Your task to perform on an android device: open app "Google Duo" (install if not already installed) Image 0: 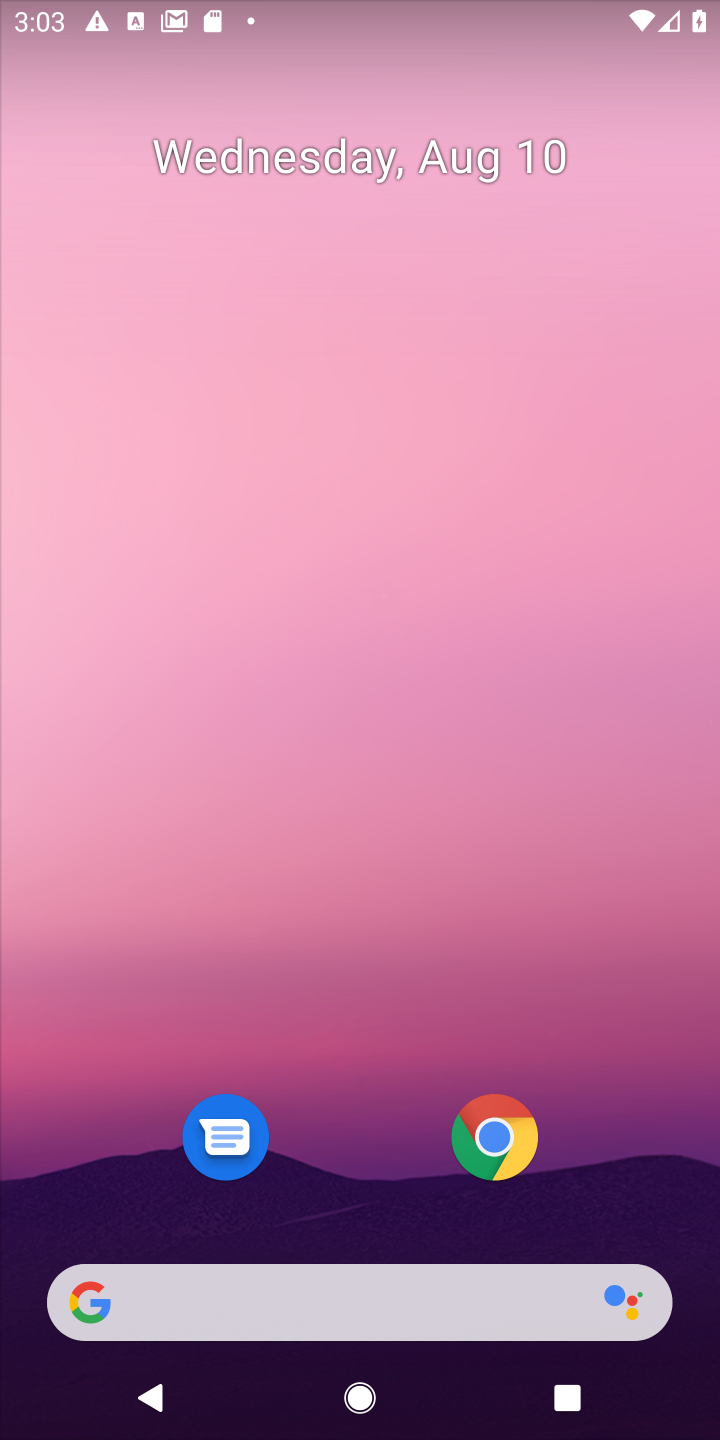
Step 0: drag from (334, 1179) to (362, 319)
Your task to perform on an android device: open app "Google Duo" (install if not already installed) Image 1: 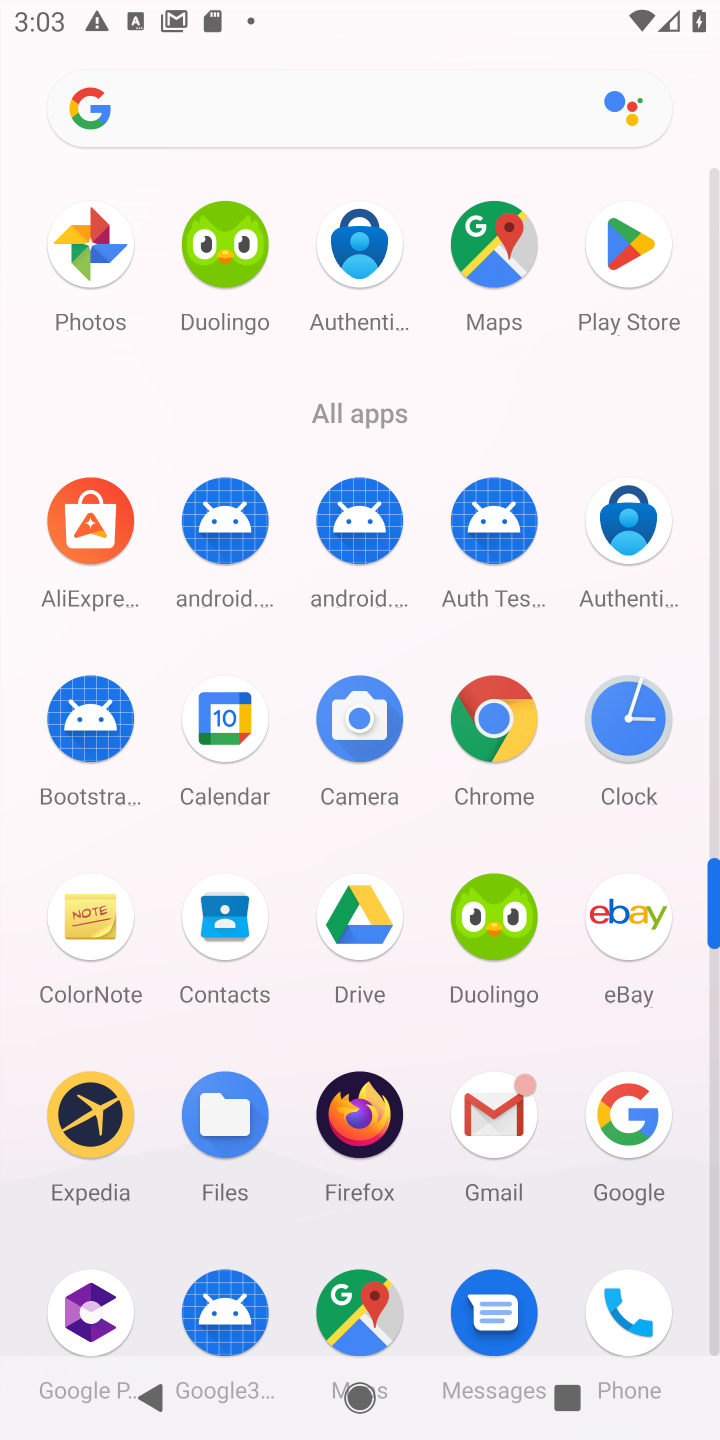
Step 1: click (626, 295)
Your task to perform on an android device: open app "Google Duo" (install if not already installed) Image 2: 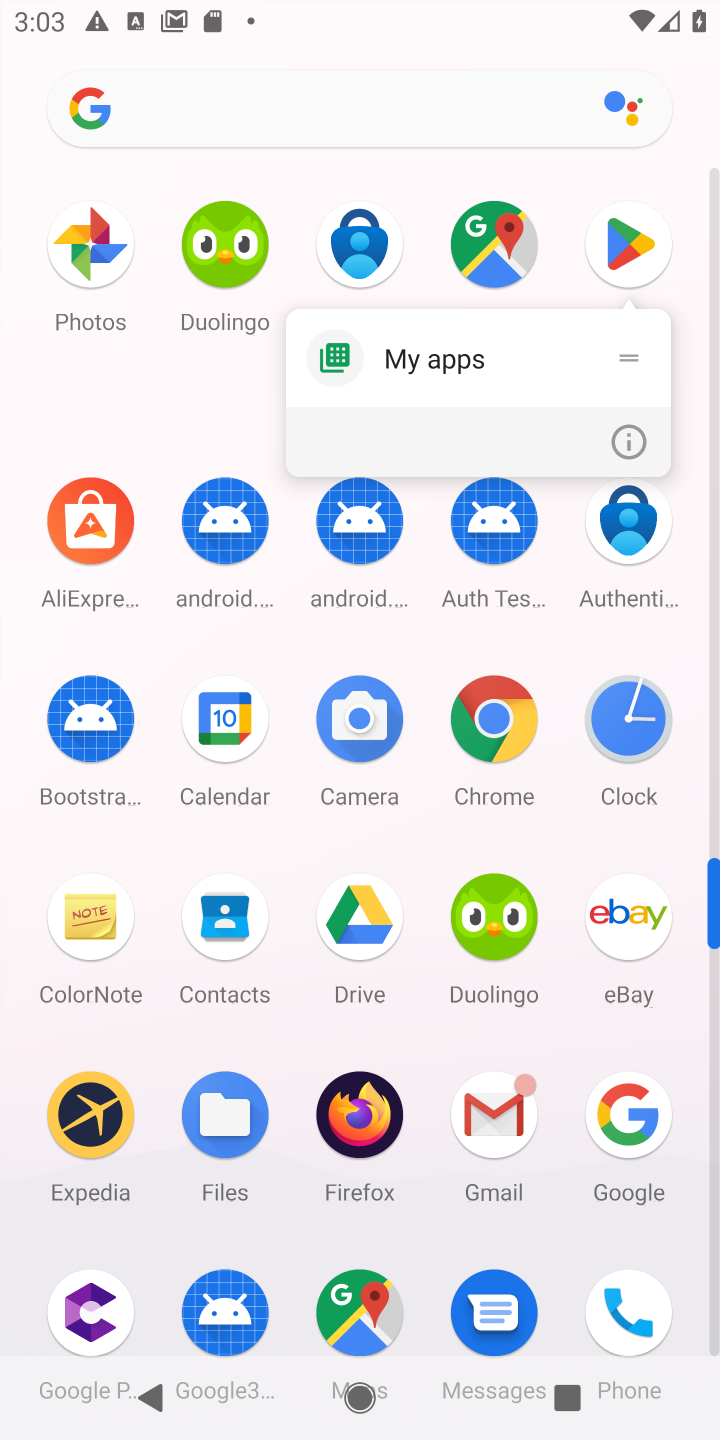
Step 2: click (630, 251)
Your task to perform on an android device: open app "Google Duo" (install if not already installed) Image 3: 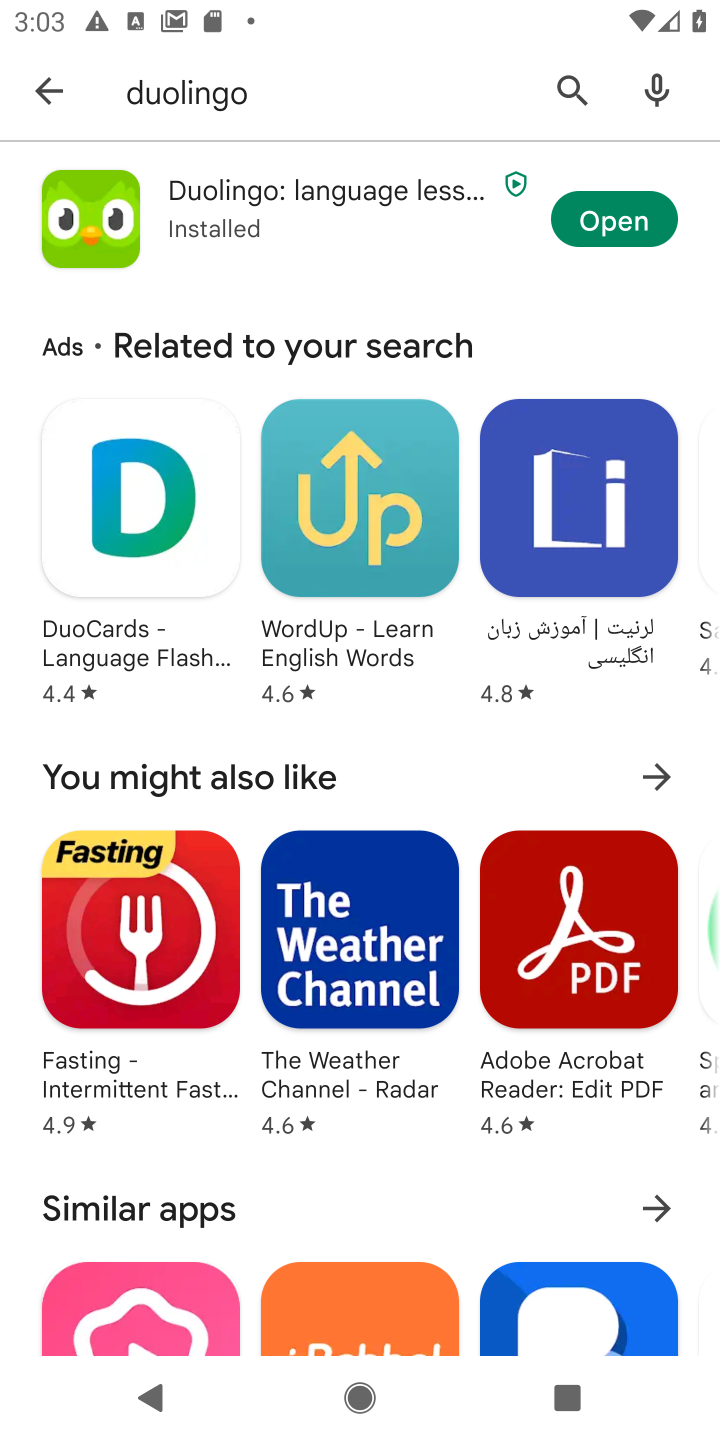
Step 3: click (291, 91)
Your task to perform on an android device: open app "Google Duo" (install if not already installed) Image 4: 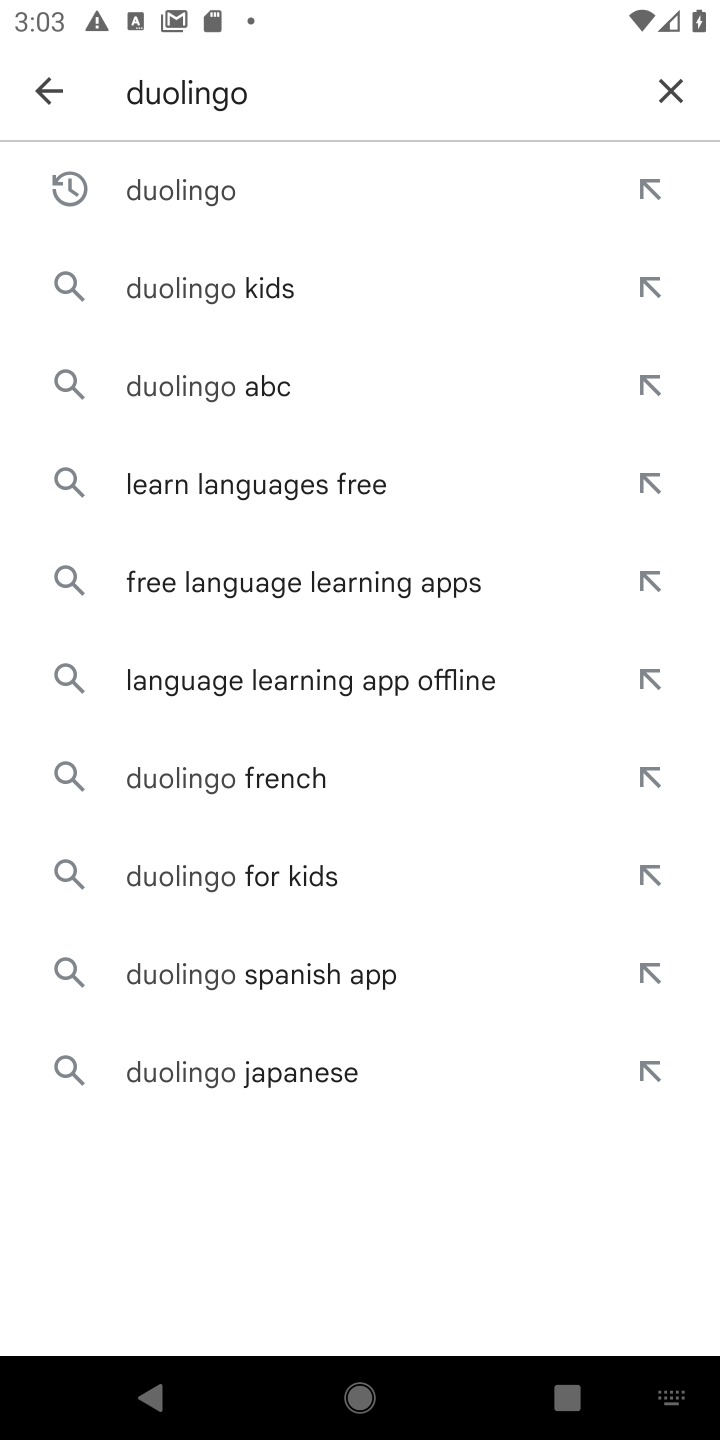
Step 4: click (662, 74)
Your task to perform on an android device: open app "Google Duo" (install if not already installed) Image 5: 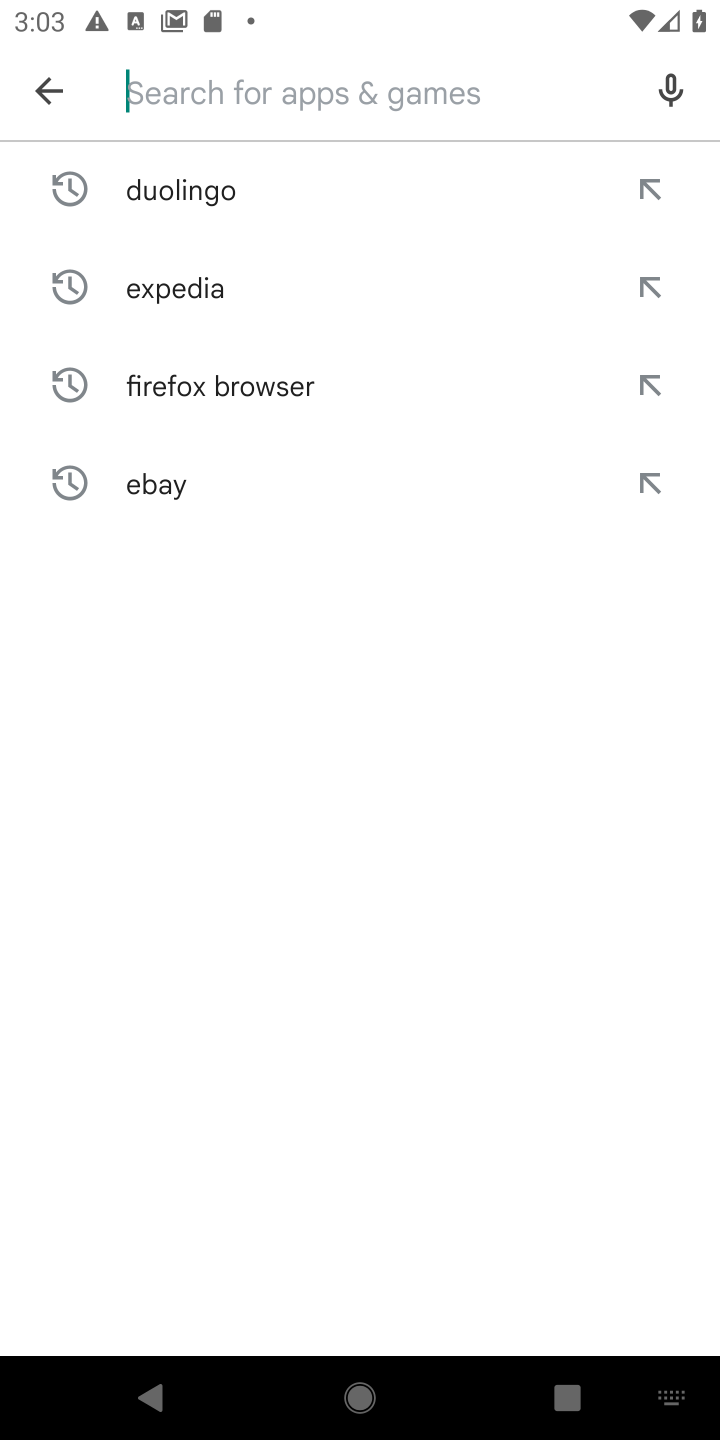
Step 5: type "google duo"
Your task to perform on an android device: open app "Google Duo" (install if not already installed) Image 6: 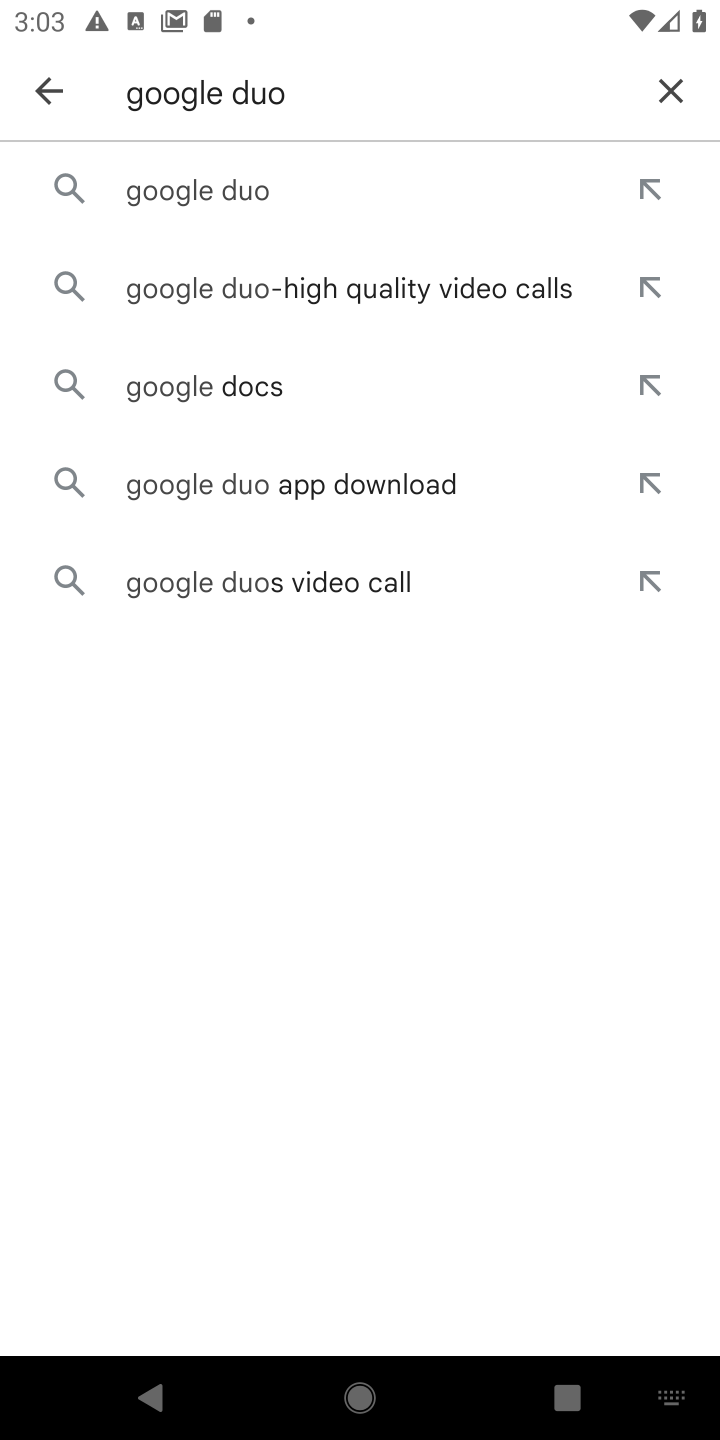
Step 6: click (162, 181)
Your task to perform on an android device: open app "Google Duo" (install if not already installed) Image 7: 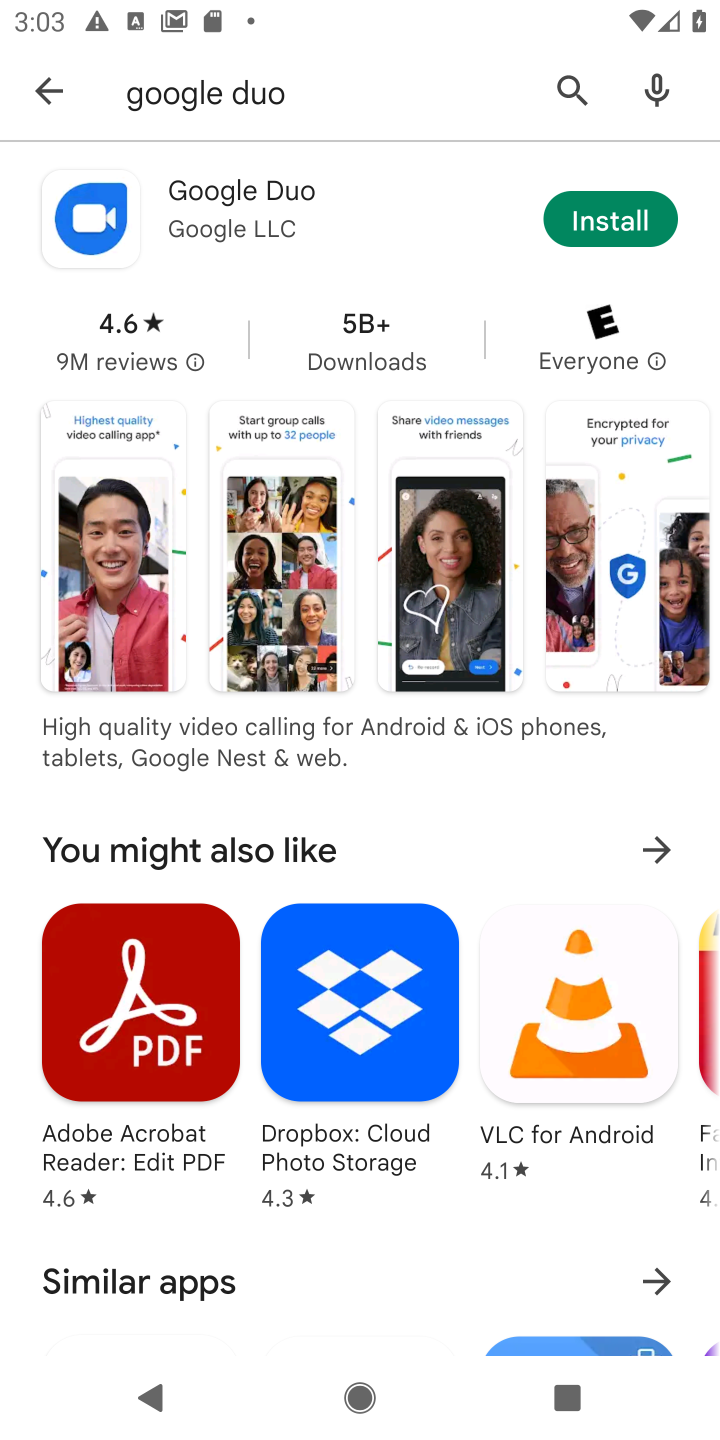
Step 7: click (614, 225)
Your task to perform on an android device: open app "Google Duo" (install if not already installed) Image 8: 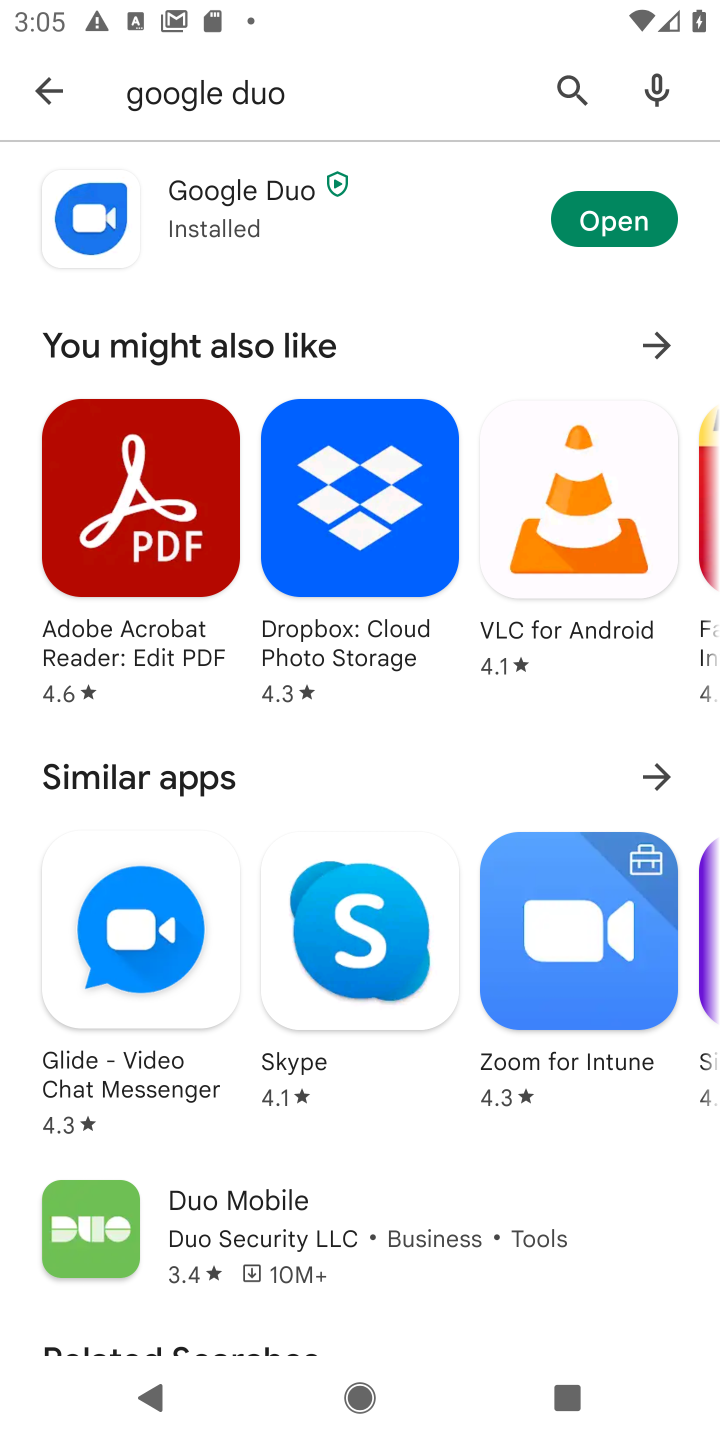
Step 8: click (597, 206)
Your task to perform on an android device: open app "Google Duo" (install if not already installed) Image 9: 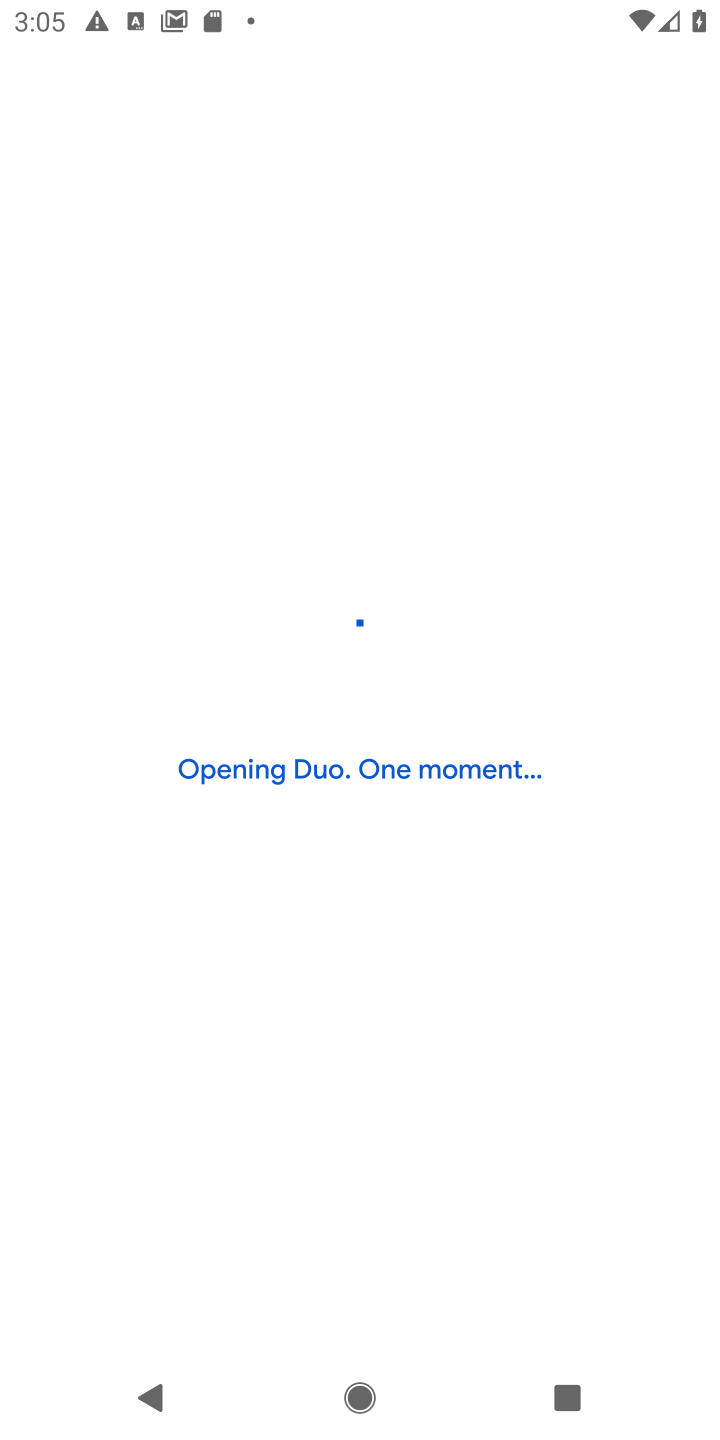
Step 9: task complete